Your task to perform on an android device: move a message to another label in the gmail app Image 0: 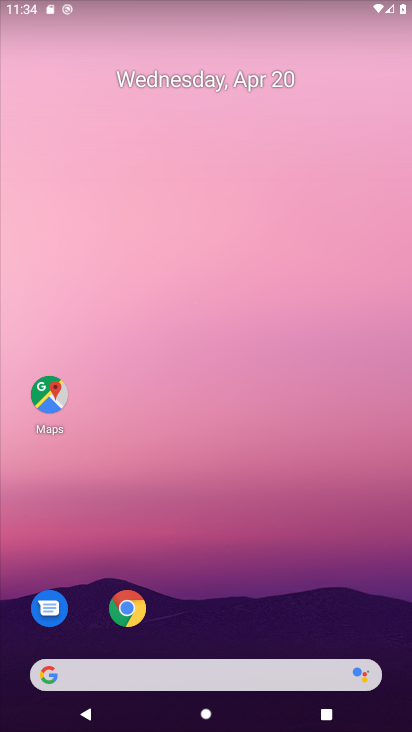
Step 0: drag from (187, 565) to (239, 127)
Your task to perform on an android device: move a message to another label in the gmail app Image 1: 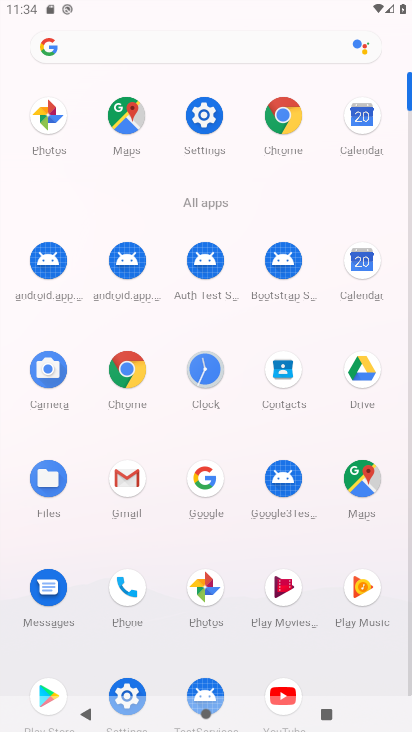
Step 1: click (128, 492)
Your task to perform on an android device: move a message to another label in the gmail app Image 2: 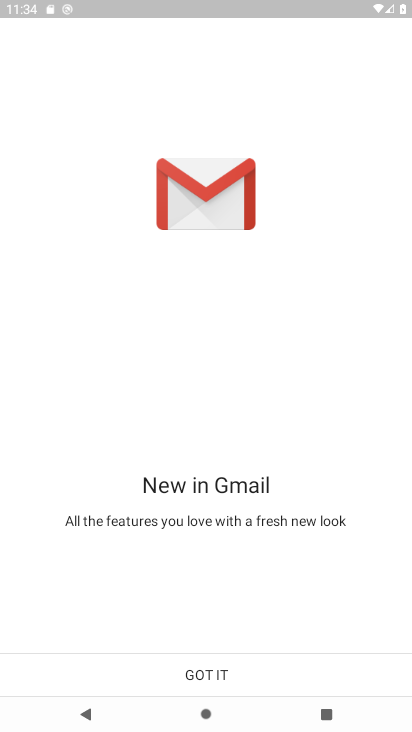
Step 2: click (204, 677)
Your task to perform on an android device: move a message to another label in the gmail app Image 3: 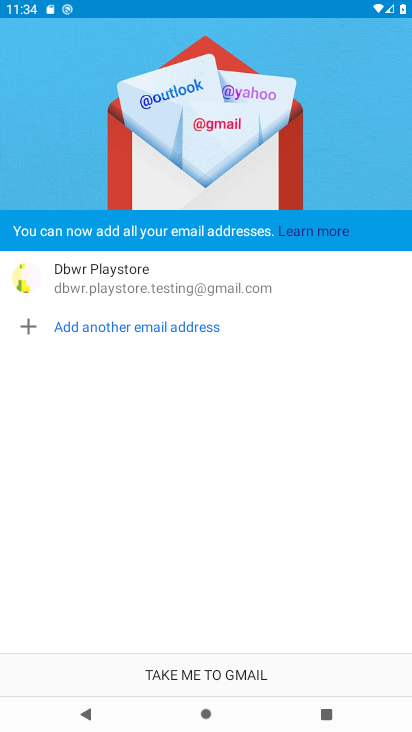
Step 3: click (204, 677)
Your task to perform on an android device: move a message to another label in the gmail app Image 4: 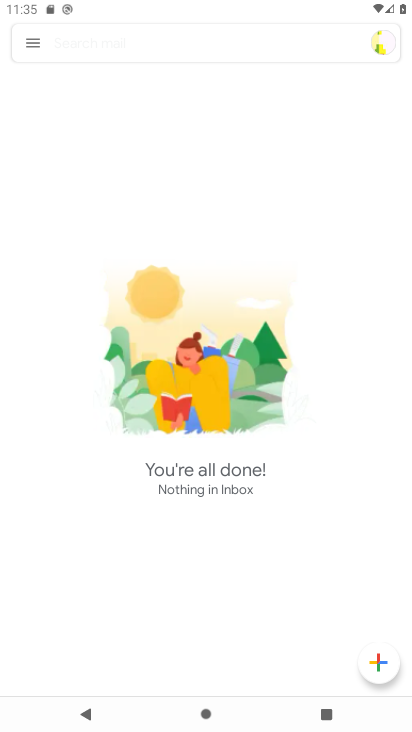
Step 4: task complete